Your task to perform on an android device: toggle notifications settings in the gmail app Image 0: 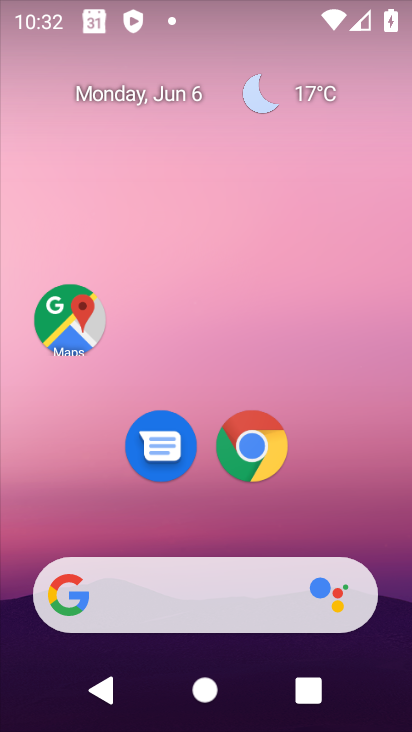
Step 0: drag from (393, 641) to (274, 13)
Your task to perform on an android device: toggle notifications settings in the gmail app Image 1: 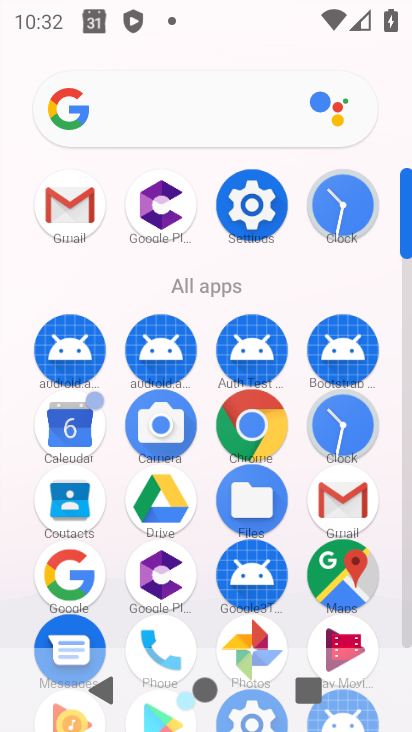
Step 1: drag from (9, 597) to (27, 167)
Your task to perform on an android device: toggle notifications settings in the gmail app Image 2: 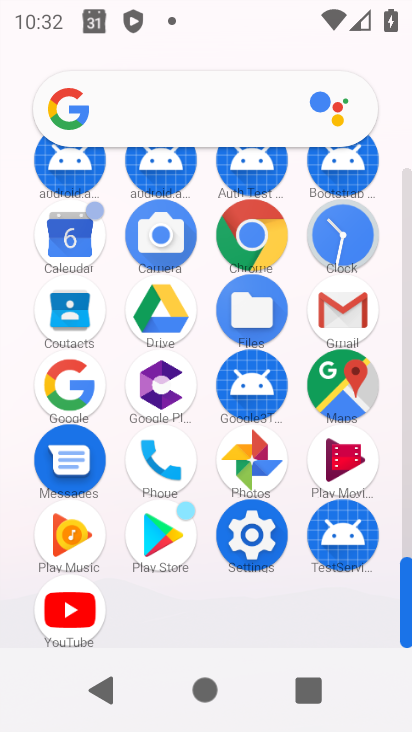
Step 2: click (343, 304)
Your task to perform on an android device: toggle notifications settings in the gmail app Image 3: 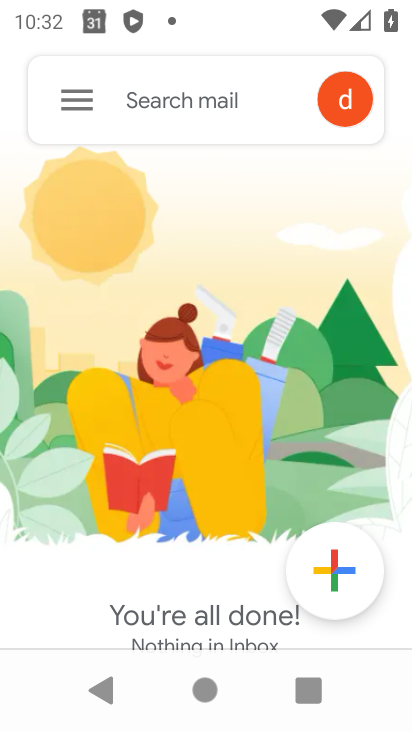
Step 3: click (68, 93)
Your task to perform on an android device: toggle notifications settings in the gmail app Image 4: 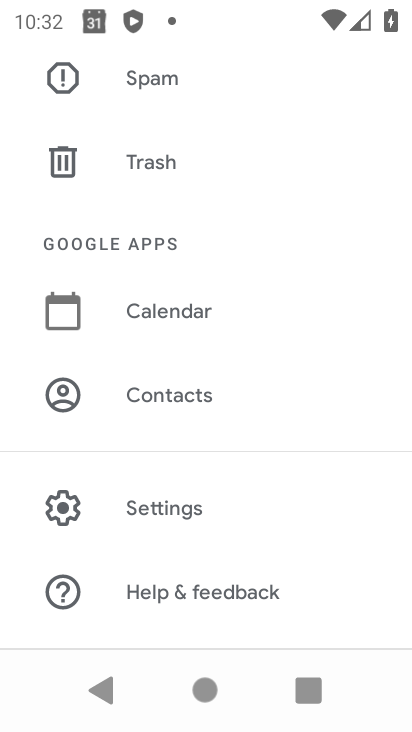
Step 4: click (161, 487)
Your task to perform on an android device: toggle notifications settings in the gmail app Image 5: 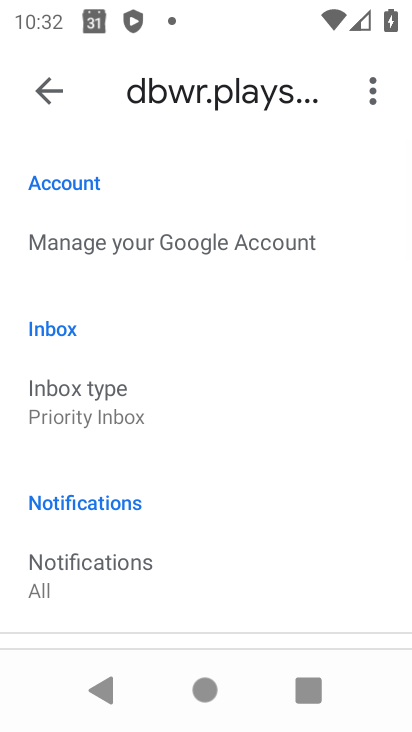
Step 5: drag from (258, 515) to (293, 175)
Your task to perform on an android device: toggle notifications settings in the gmail app Image 6: 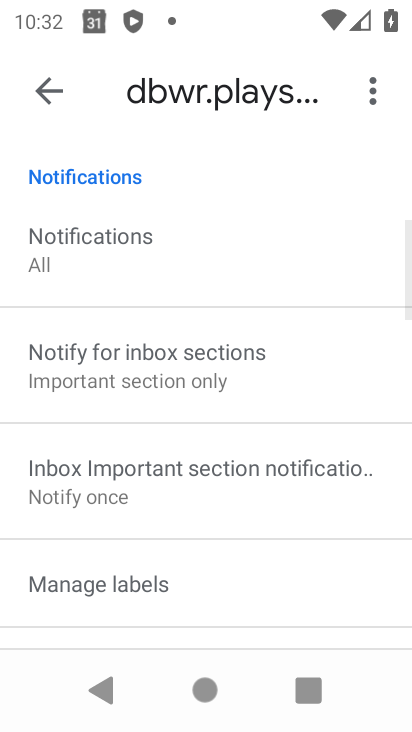
Step 6: drag from (291, 186) to (242, 497)
Your task to perform on an android device: toggle notifications settings in the gmail app Image 7: 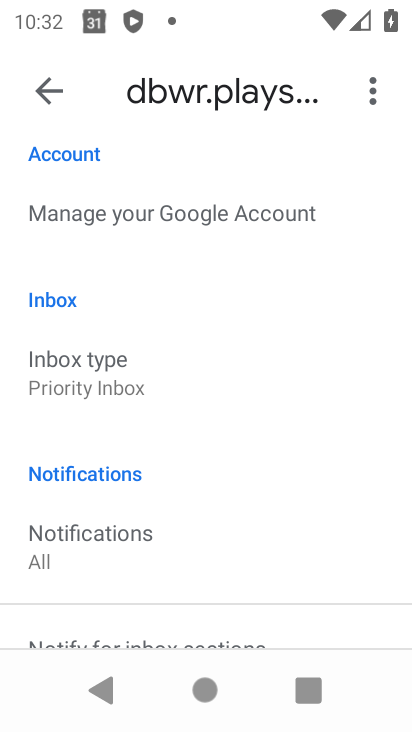
Step 7: drag from (257, 534) to (298, 170)
Your task to perform on an android device: toggle notifications settings in the gmail app Image 8: 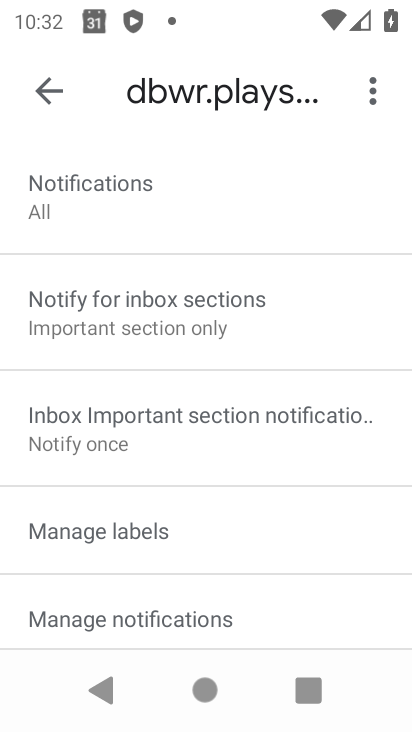
Step 8: click (123, 614)
Your task to perform on an android device: toggle notifications settings in the gmail app Image 9: 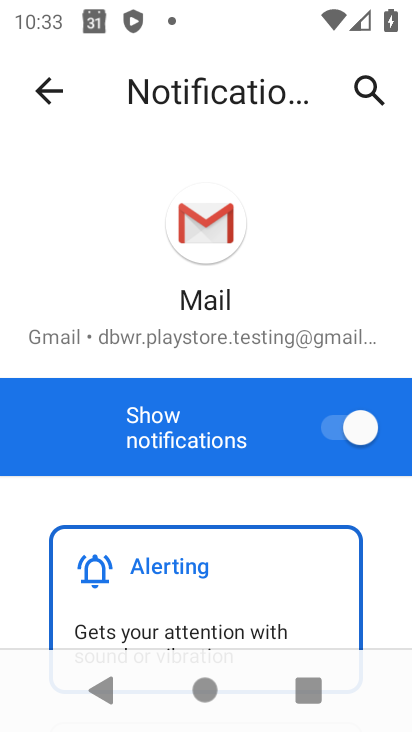
Step 9: click (333, 429)
Your task to perform on an android device: toggle notifications settings in the gmail app Image 10: 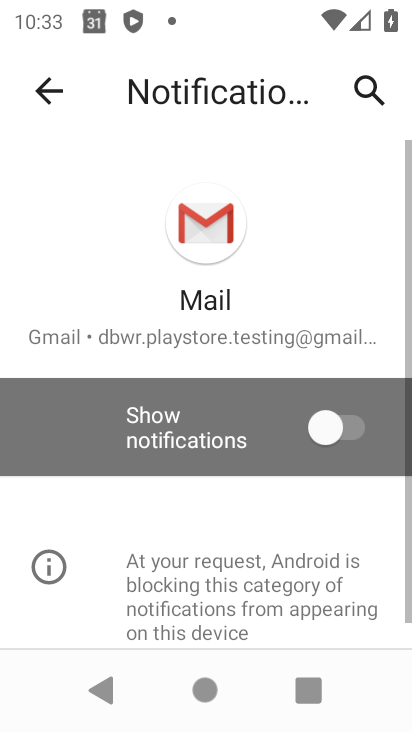
Step 10: task complete